Your task to perform on an android device: Go to Amazon Image 0: 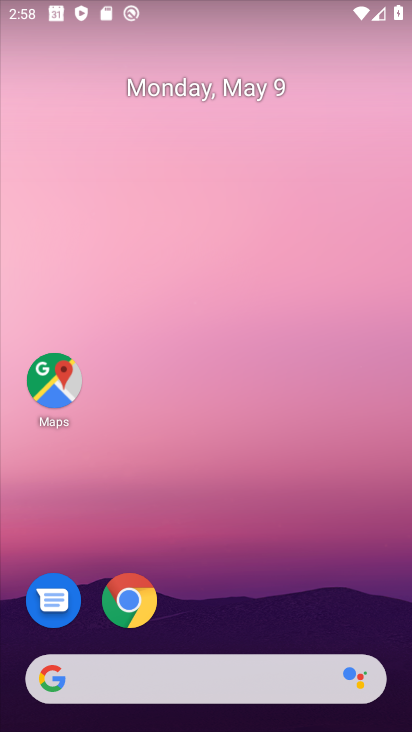
Step 0: click (132, 611)
Your task to perform on an android device: Go to Amazon Image 1: 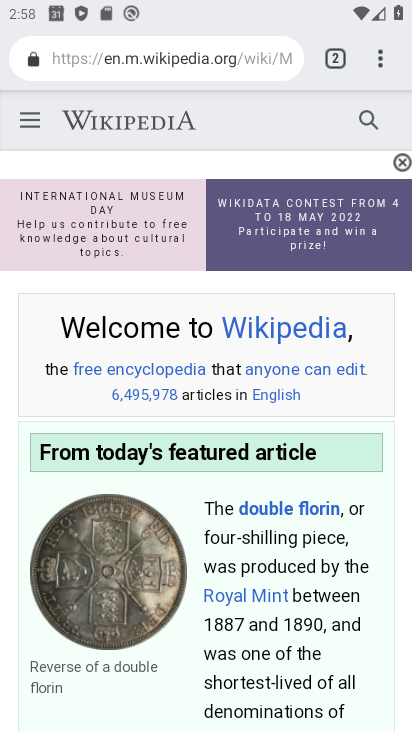
Step 1: click (379, 63)
Your task to perform on an android device: Go to Amazon Image 2: 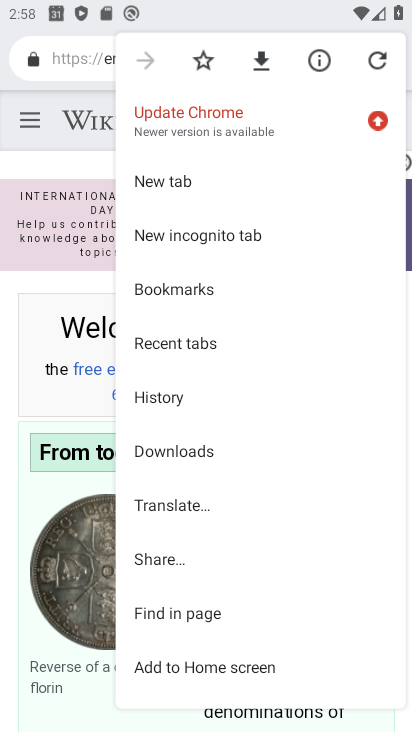
Step 2: click (167, 176)
Your task to perform on an android device: Go to Amazon Image 3: 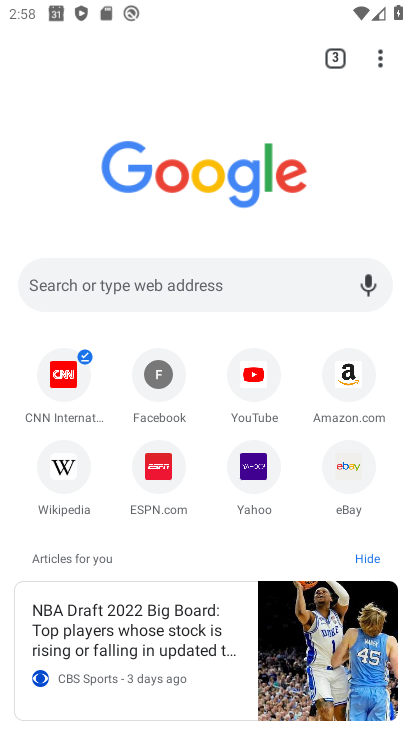
Step 3: click (358, 381)
Your task to perform on an android device: Go to Amazon Image 4: 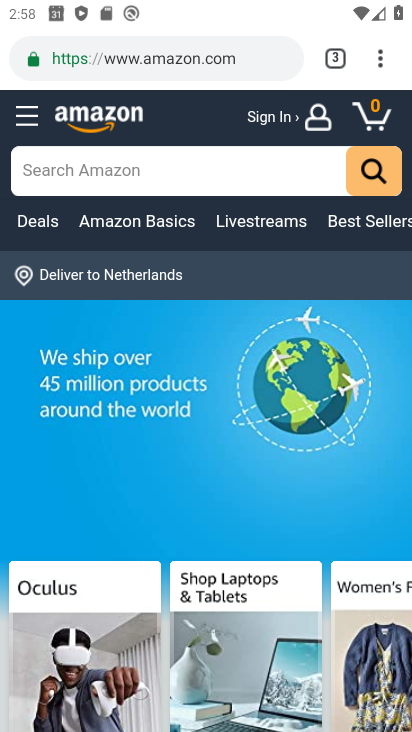
Step 4: task complete